Your task to perform on an android device: Open display settings Image 0: 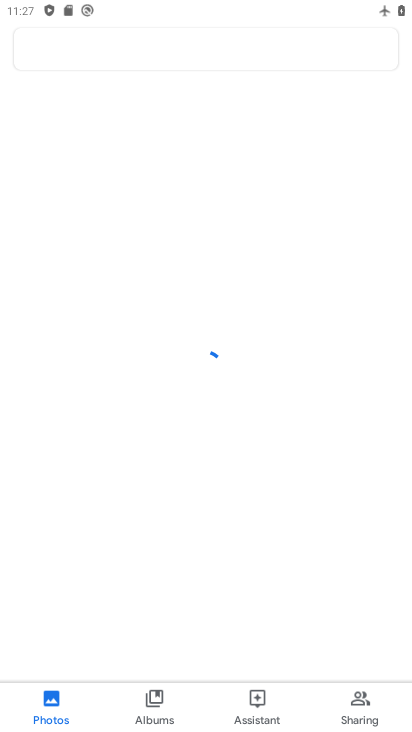
Step 0: press home button
Your task to perform on an android device: Open display settings Image 1: 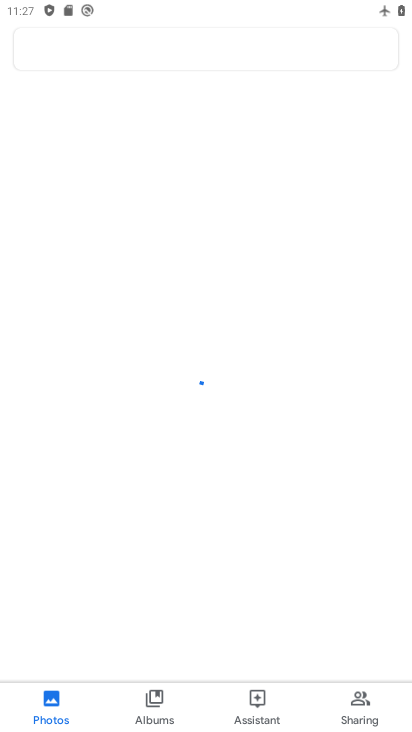
Step 1: drag from (397, 682) to (69, 33)
Your task to perform on an android device: Open display settings Image 2: 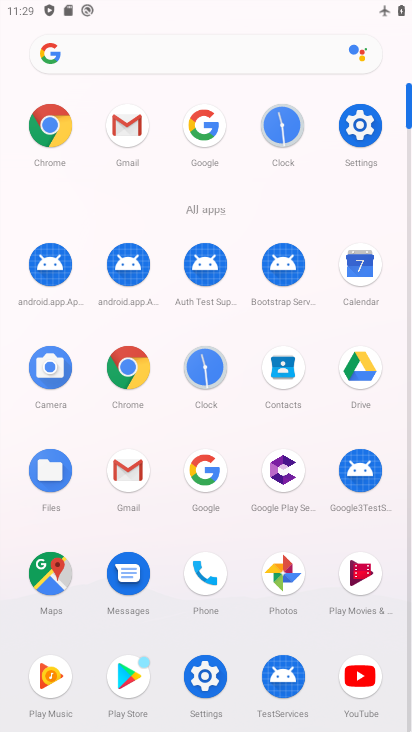
Step 2: click (199, 690)
Your task to perform on an android device: Open display settings Image 3: 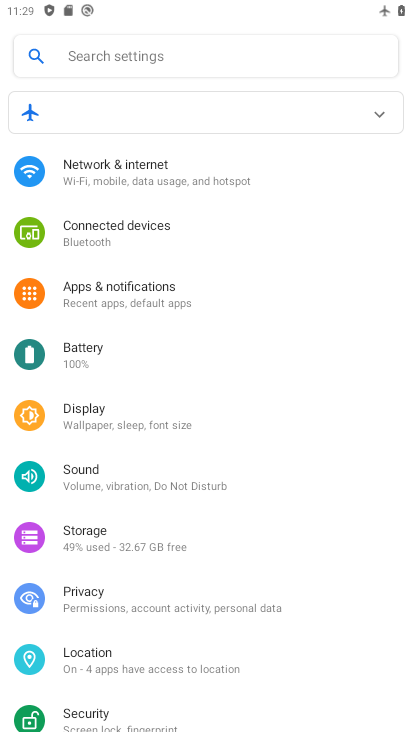
Step 3: click (103, 420)
Your task to perform on an android device: Open display settings Image 4: 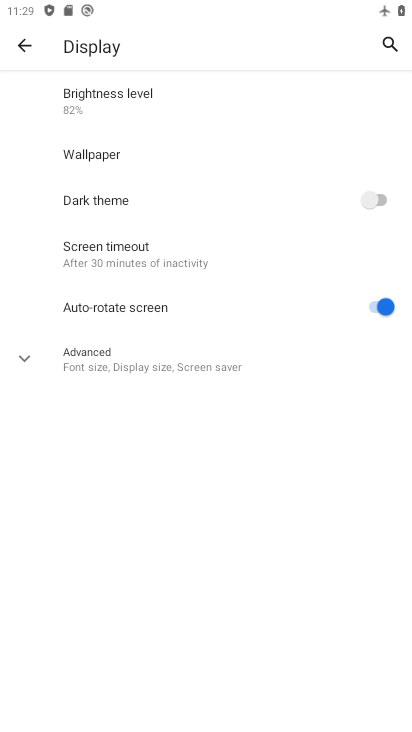
Step 4: task complete